Your task to perform on an android device: turn pop-ups off in chrome Image 0: 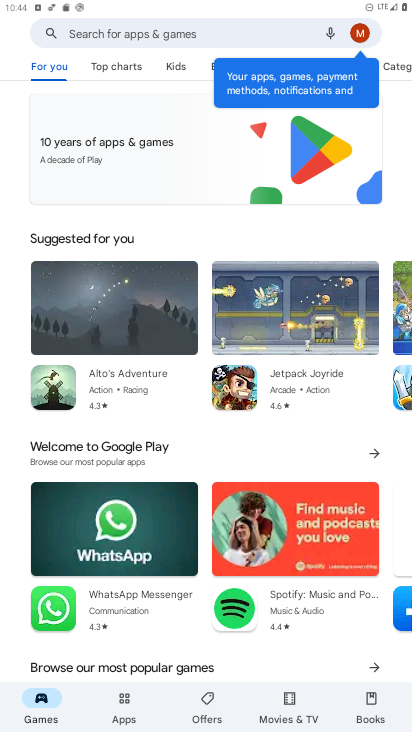
Step 0: press home button
Your task to perform on an android device: turn pop-ups off in chrome Image 1: 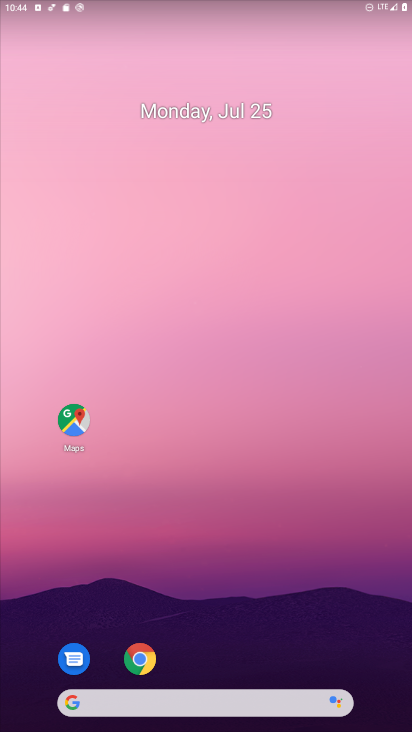
Step 1: click (147, 666)
Your task to perform on an android device: turn pop-ups off in chrome Image 2: 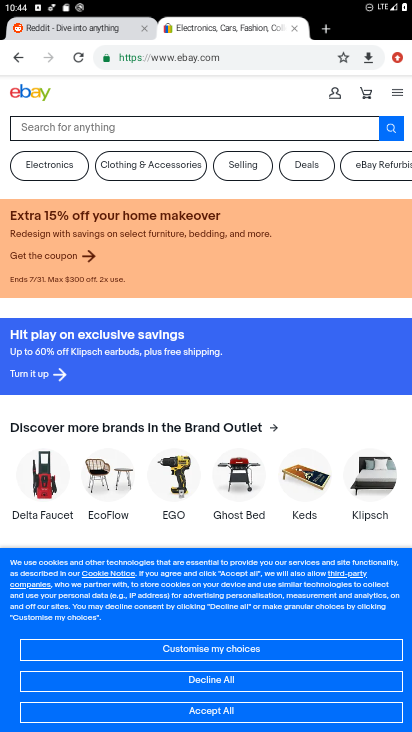
Step 2: drag from (400, 54) to (291, 425)
Your task to perform on an android device: turn pop-ups off in chrome Image 3: 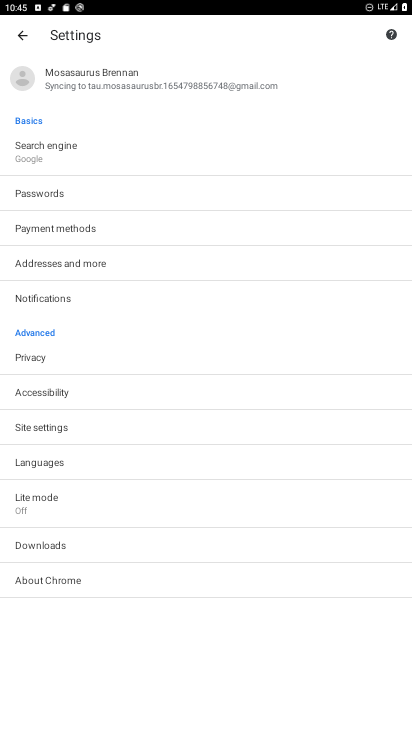
Step 3: click (69, 439)
Your task to perform on an android device: turn pop-ups off in chrome Image 4: 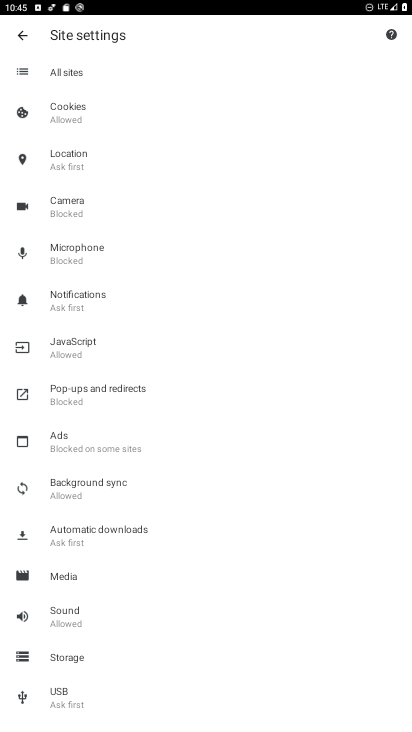
Step 4: click (110, 392)
Your task to perform on an android device: turn pop-ups off in chrome Image 5: 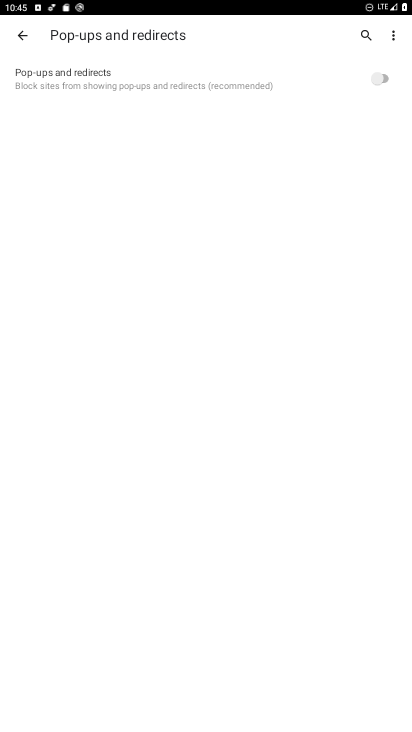
Step 5: task complete